Your task to perform on an android device: Show me recent news Image 0: 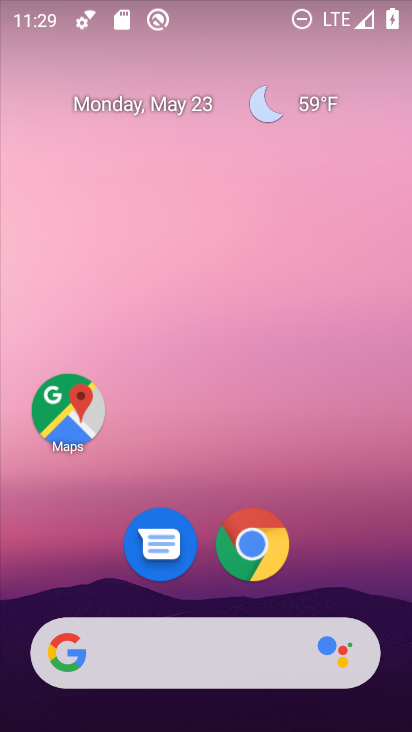
Step 0: drag from (6, 216) to (395, 287)
Your task to perform on an android device: Show me recent news Image 1: 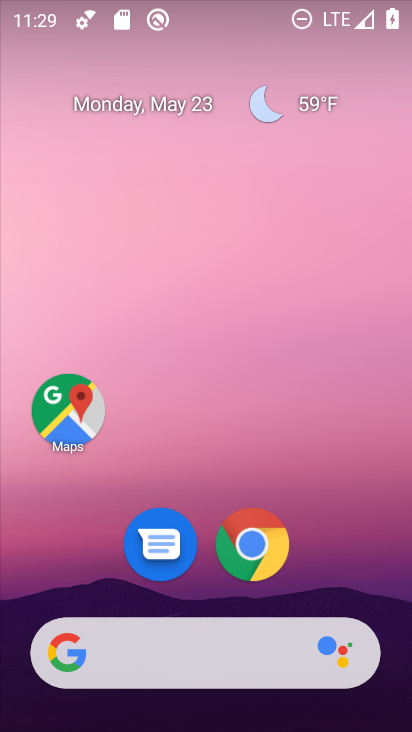
Step 1: task complete